Your task to perform on an android device: Open privacy settings Image 0: 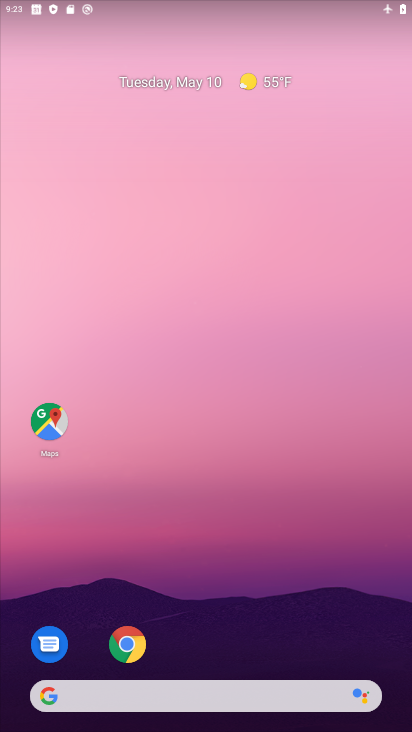
Step 0: drag from (258, 651) to (161, 156)
Your task to perform on an android device: Open privacy settings Image 1: 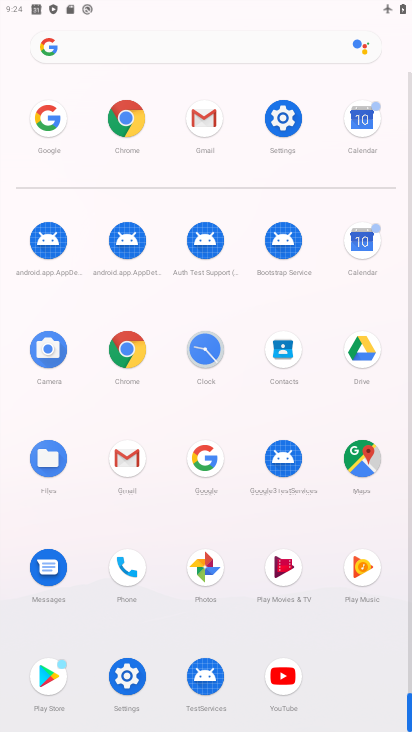
Step 1: click (289, 147)
Your task to perform on an android device: Open privacy settings Image 2: 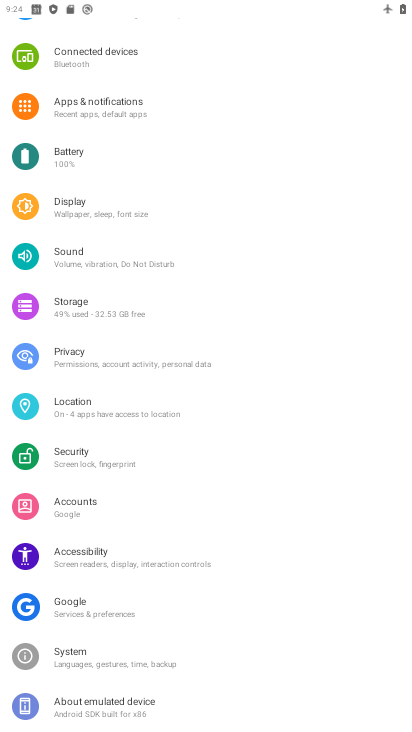
Step 2: click (128, 362)
Your task to perform on an android device: Open privacy settings Image 3: 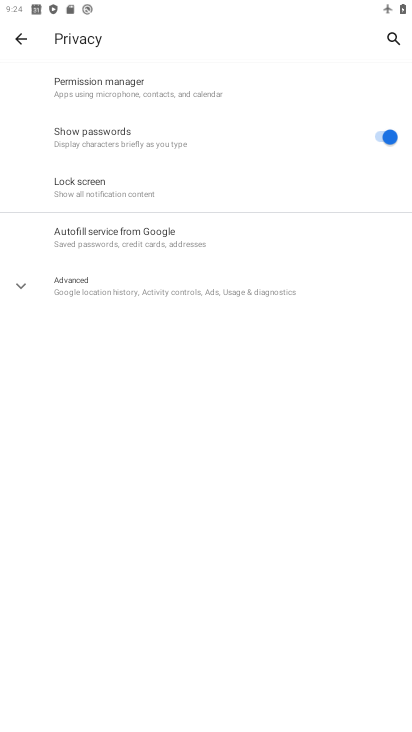
Step 3: task complete